Your task to perform on an android device: Open Google Chrome and click the shortcut for Amazon.com Image 0: 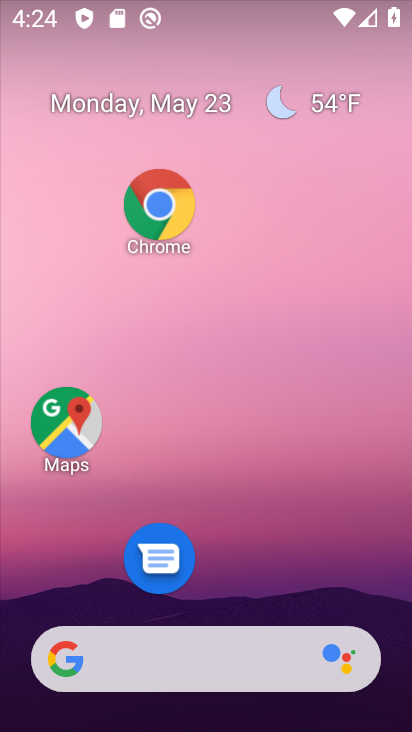
Step 0: drag from (349, 349) to (280, 146)
Your task to perform on an android device: Open Google Chrome and click the shortcut for Amazon.com Image 1: 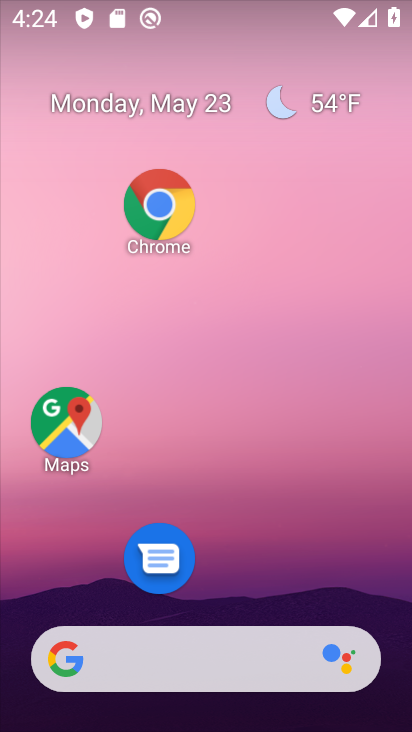
Step 1: drag from (362, 651) to (187, 143)
Your task to perform on an android device: Open Google Chrome and click the shortcut for Amazon.com Image 2: 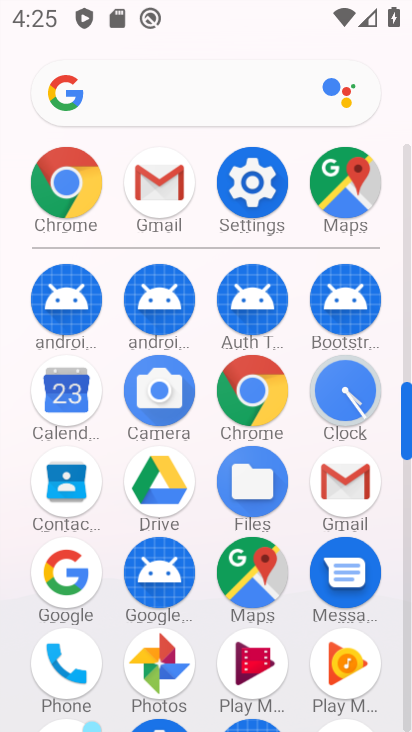
Step 2: click (56, 179)
Your task to perform on an android device: Open Google Chrome and click the shortcut for Amazon.com Image 3: 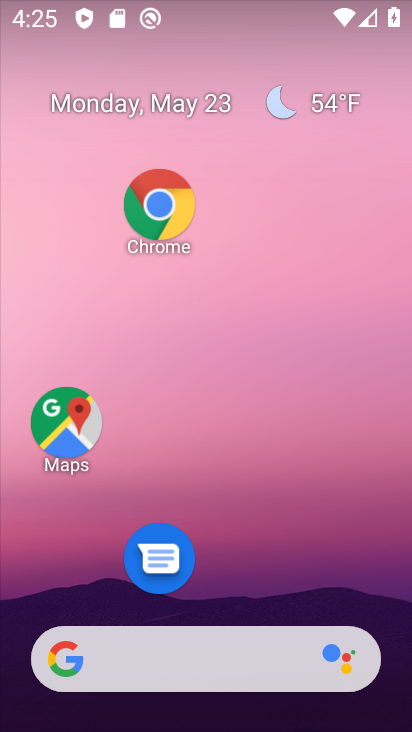
Step 3: click (69, 229)
Your task to perform on an android device: Open Google Chrome and click the shortcut for Amazon.com Image 4: 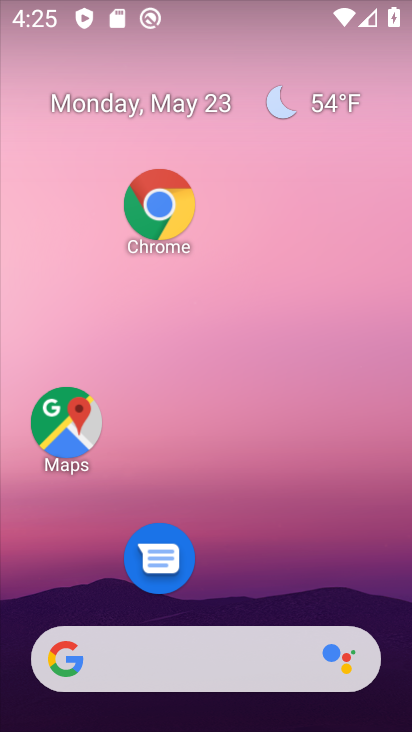
Step 4: drag from (271, 644) to (102, 91)
Your task to perform on an android device: Open Google Chrome and click the shortcut for Amazon.com Image 5: 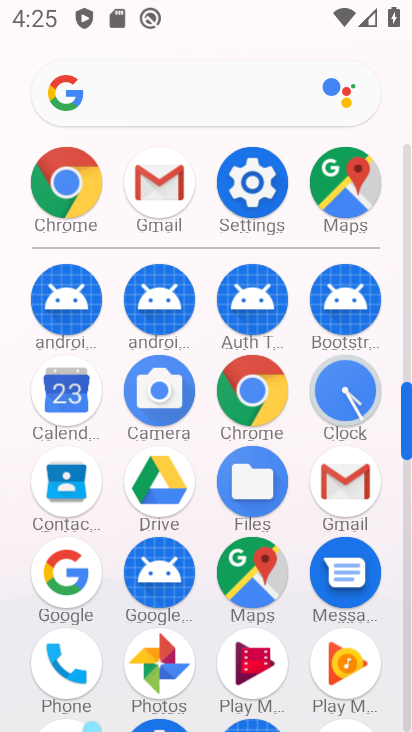
Step 5: click (58, 181)
Your task to perform on an android device: Open Google Chrome and click the shortcut for Amazon.com Image 6: 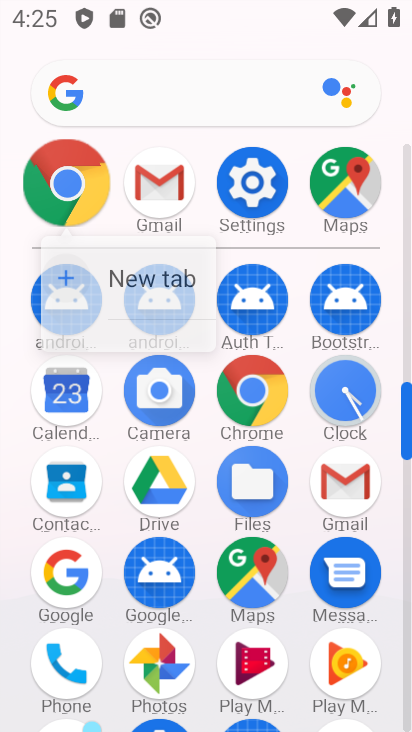
Step 6: click (58, 178)
Your task to perform on an android device: Open Google Chrome and click the shortcut for Amazon.com Image 7: 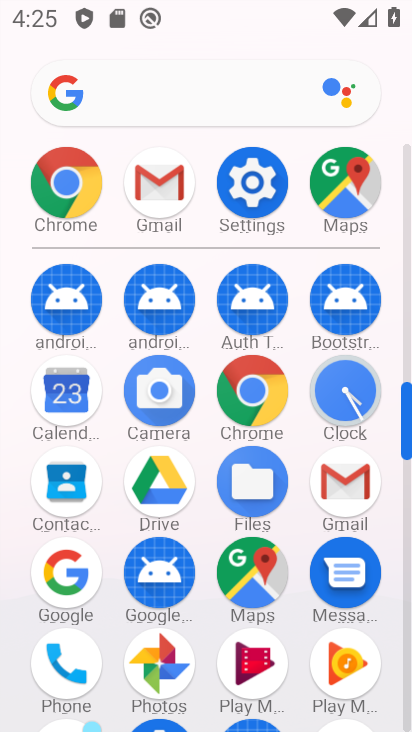
Step 7: click (65, 183)
Your task to perform on an android device: Open Google Chrome and click the shortcut for Amazon.com Image 8: 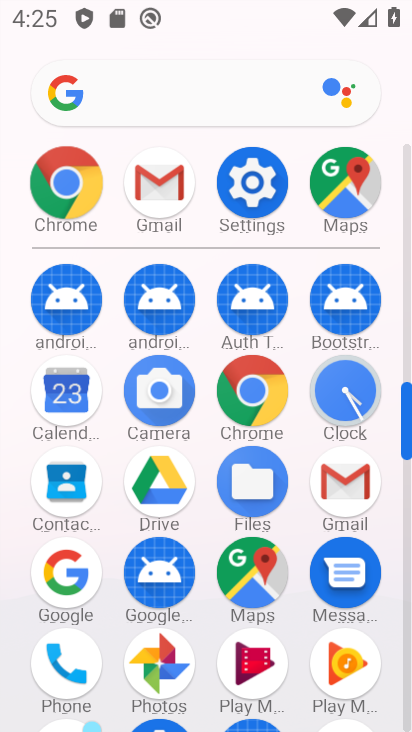
Step 8: click (65, 183)
Your task to perform on an android device: Open Google Chrome and click the shortcut for Amazon.com Image 9: 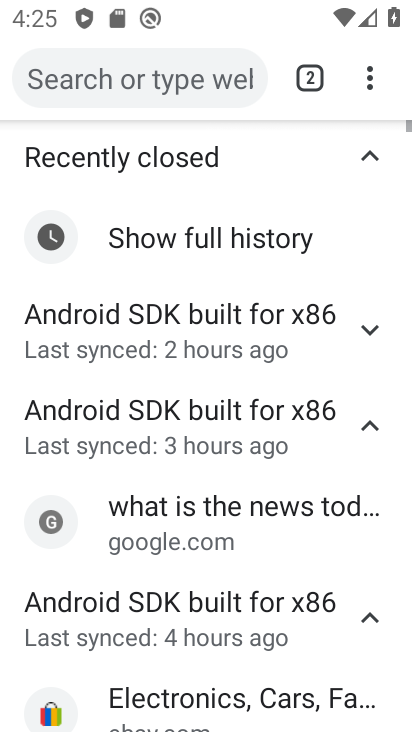
Step 9: click (70, 185)
Your task to perform on an android device: Open Google Chrome and click the shortcut for Amazon.com Image 10: 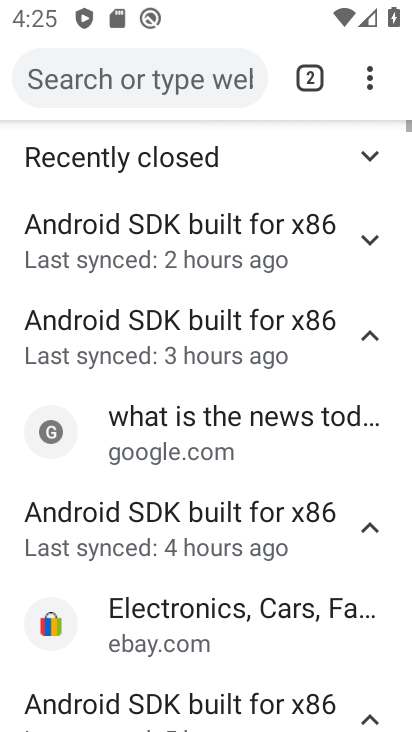
Step 10: click (366, 74)
Your task to perform on an android device: Open Google Chrome and click the shortcut for Amazon.com Image 11: 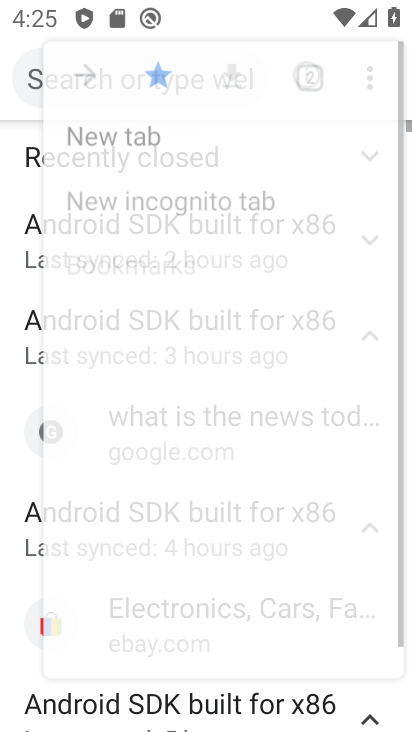
Step 11: click (366, 74)
Your task to perform on an android device: Open Google Chrome and click the shortcut for Amazon.com Image 12: 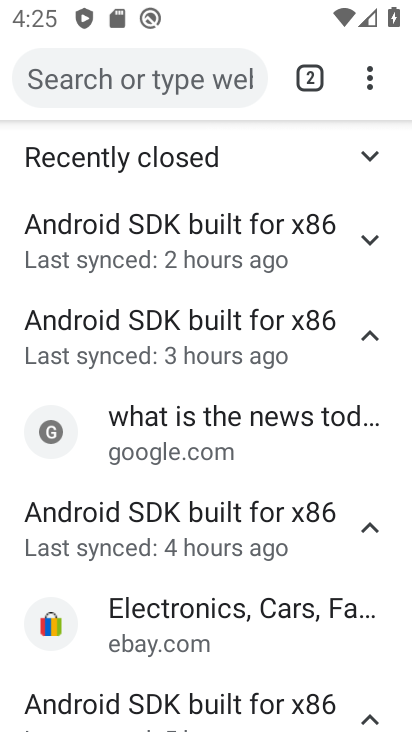
Step 12: drag from (369, 86) to (321, 123)
Your task to perform on an android device: Open Google Chrome and click the shortcut for Amazon.com Image 13: 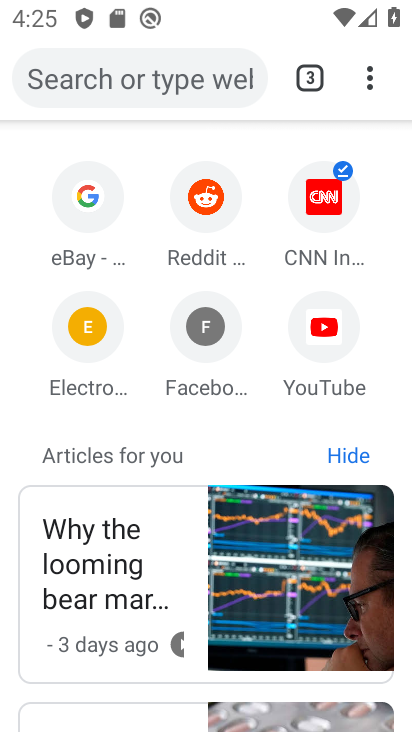
Step 13: drag from (365, 70) to (56, 145)
Your task to perform on an android device: Open Google Chrome and click the shortcut for Amazon.com Image 14: 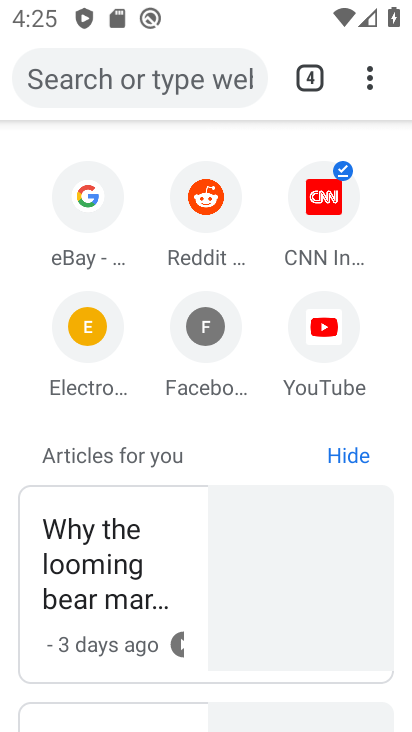
Step 14: click (43, 151)
Your task to perform on an android device: Open Google Chrome and click the shortcut for Amazon.com Image 15: 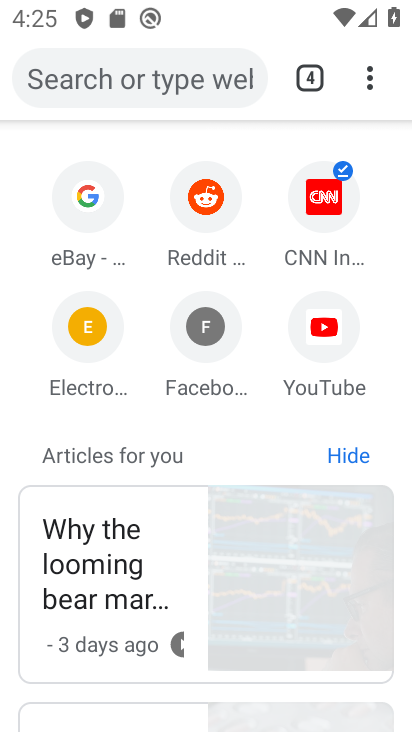
Step 15: click (51, 151)
Your task to perform on an android device: Open Google Chrome and click the shortcut for Amazon.com Image 16: 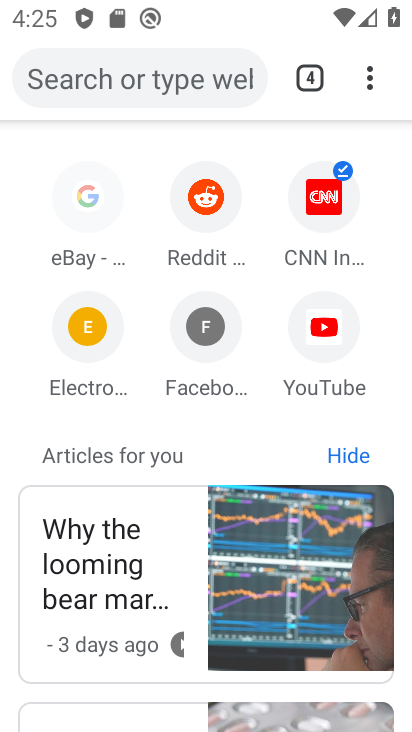
Step 16: click (58, 144)
Your task to perform on an android device: Open Google Chrome and click the shortcut for Amazon.com Image 17: 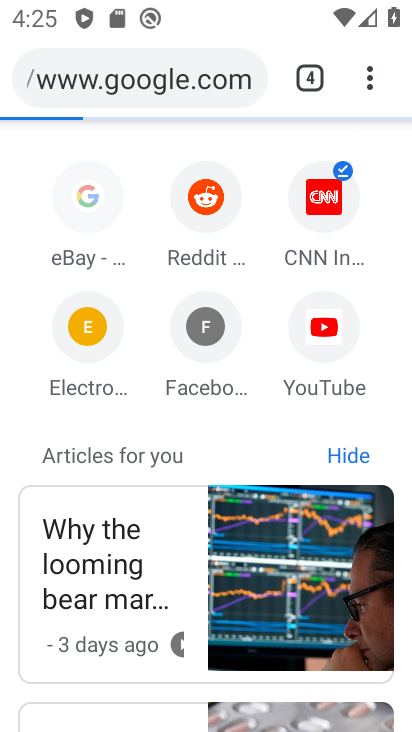
Step 17: click (58, 144)
Your task to perform on an android device: Open Google Chrome and click the shortcut for Amazon.com Image 18: 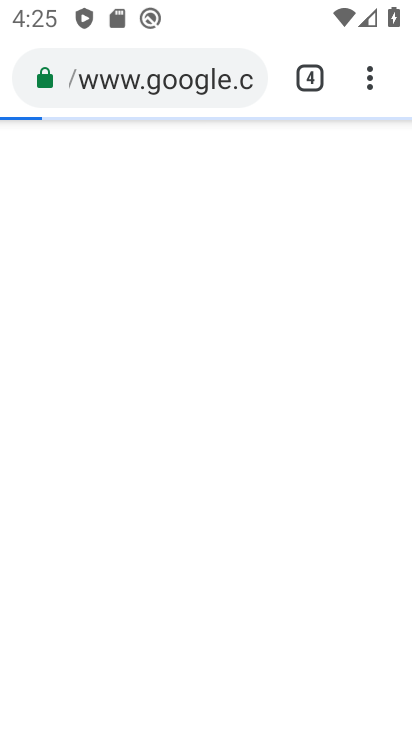
Step 18: click (64, 142)
Your task to perform on an android device: Open Google Chrome and click the shortcut for Amazon.com Image 19: 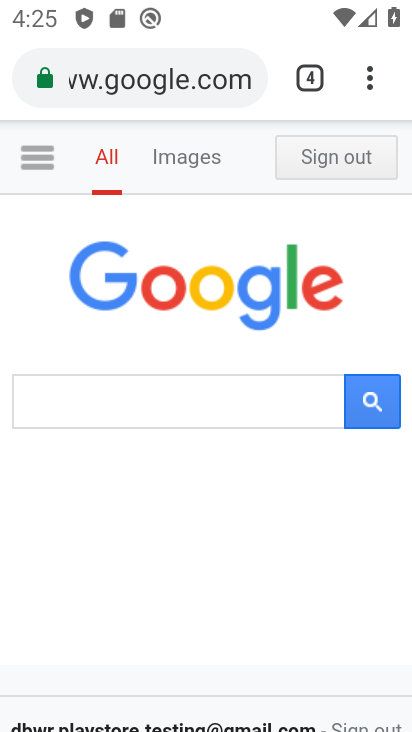
Step 19: drag from (367, 86) to (96, 150)
Your task to perform on an android device: Open Google Chrome and click the shortcut for Amazon.com Image 20: 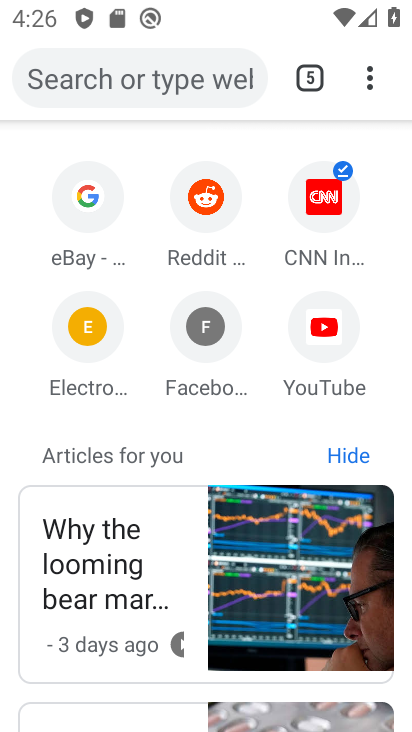
Step 20: click (82, 151)
Your task to perform on an android device: Open Google Chrome and click the shortcut for Amazon.com Image 21: 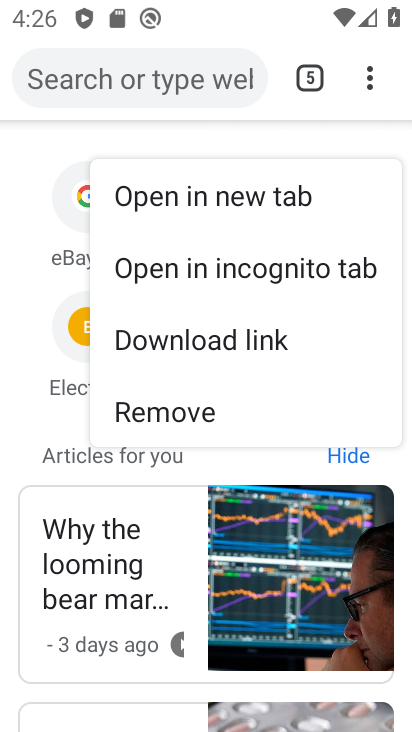
Step 21: click (47, 168)
Your task to perform on an android device: Open Google Chrome and click the shortcut for Amazon.com Image 22: 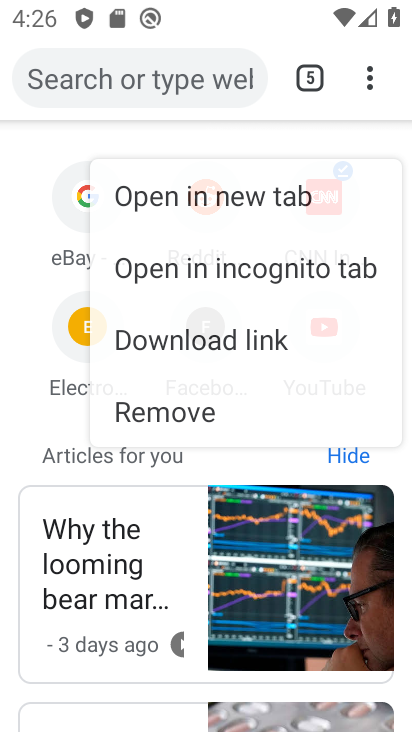
Step 22: drag from (45, 129) to (51, 63)
Your task to perform on an android device: Open Google Chrome and click the shortcut for Amazon.com Image 23: 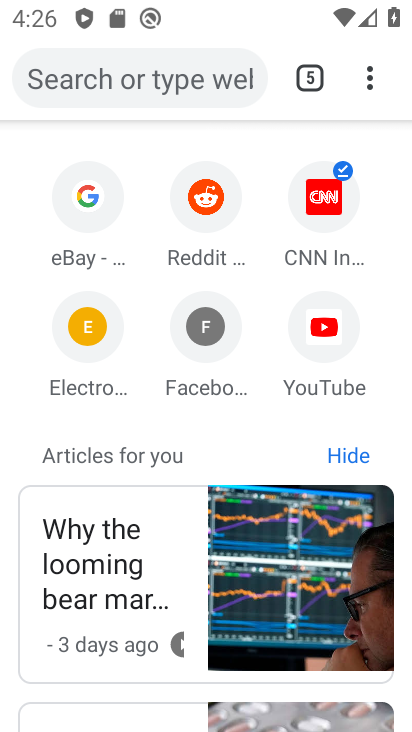
Step 23: click (68, 99)
Your task to perform on an android device: Open Google Chrome and click the shortcut for Amazon.com Image 24: 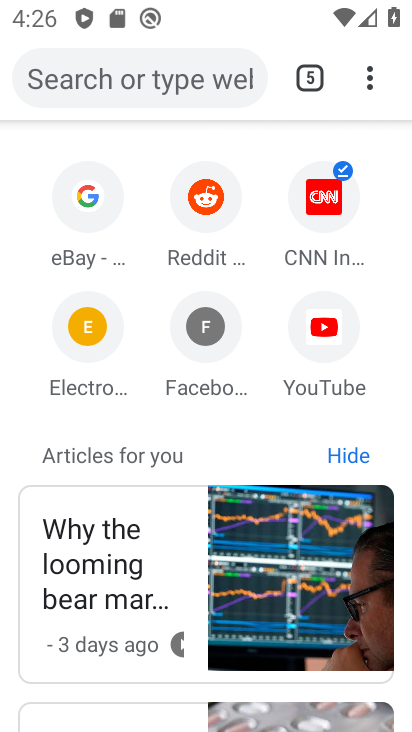
Step 24: click (59, 94)
Your task to perform on an android device: Open Google Chrome and click the shortcut for Amazon.com Image 25: 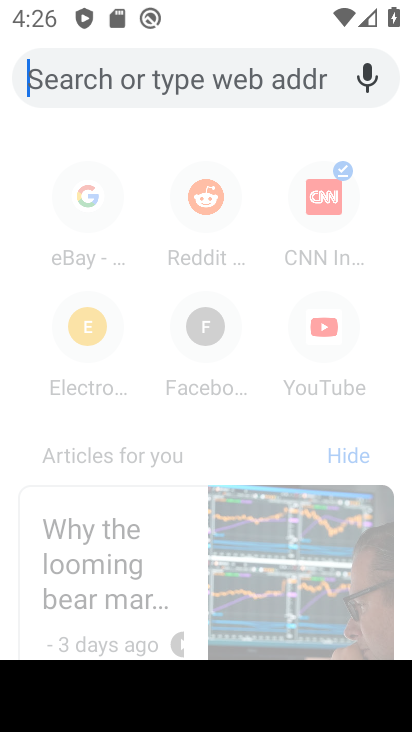
Step 25: click (74, 80)
Your task to perform on an android device: Open Google Chrome and click the shortcut for Amazon.com Image 26: 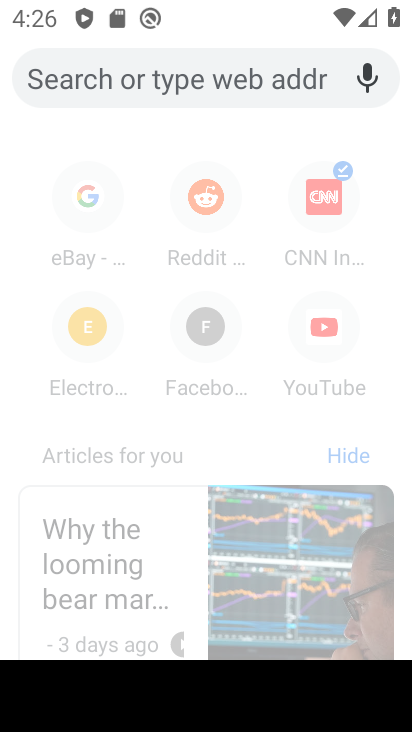
Step 26: click (73, 73)
Your task to perform on an android device: Open Google Chrome and click the shortcut for Amazon.com Image 27: 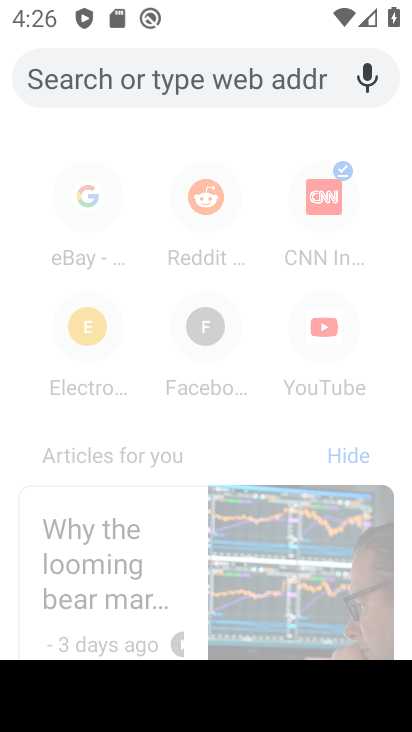
Step 27: type "www.amazon.com"
Your task to perform on an android device: Open Google Chrome and click the shortcut for Amazon.com Image 28: 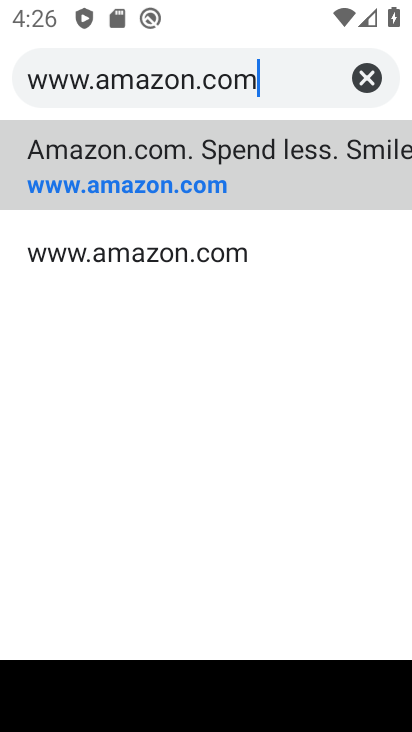
Step 28: click (125, 187)
Your task to perform on an android device: Open Google Chrome and click the shortcut for Amazon.com Image 29: 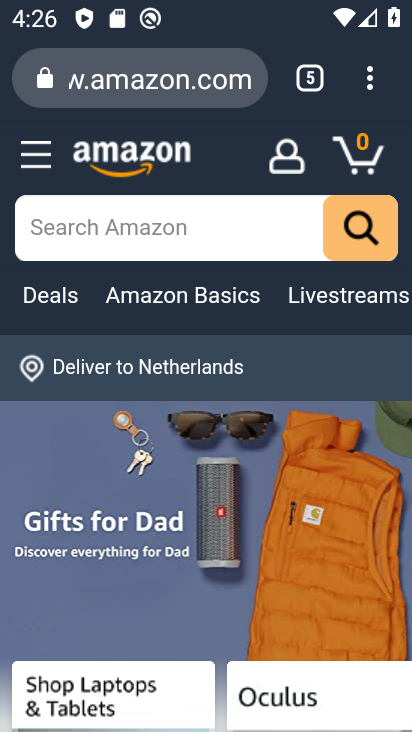
Step 29: task complete